Your task to perform on an android device: turn off notifications settings in the gmail app Image 0: 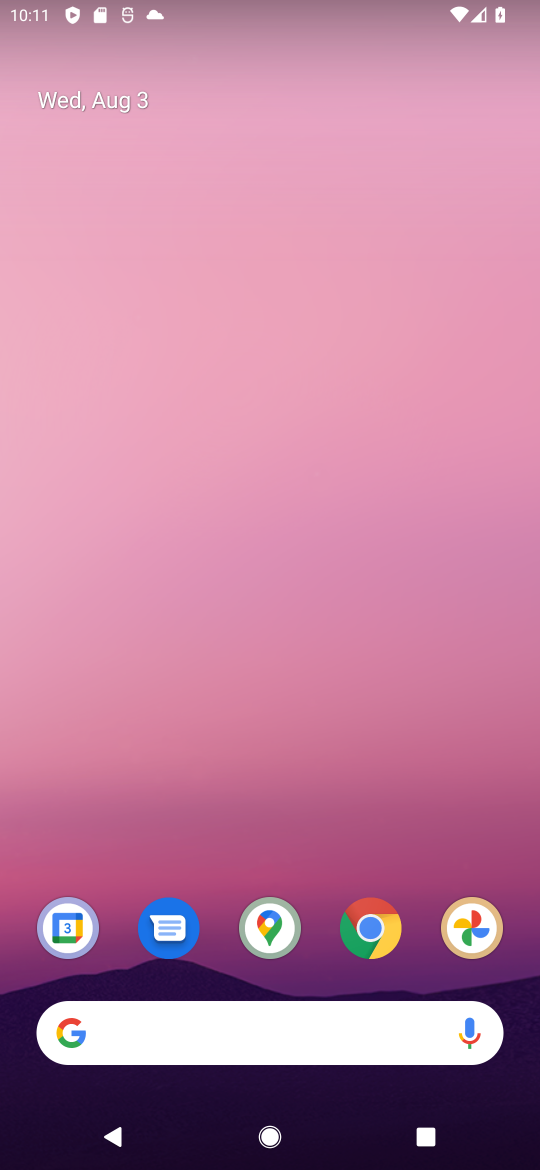
Step 0: drag from (411, 864) to (271, 2)
Your task to perform on an android device: turn off notifications settings in the gmail app Image 1: 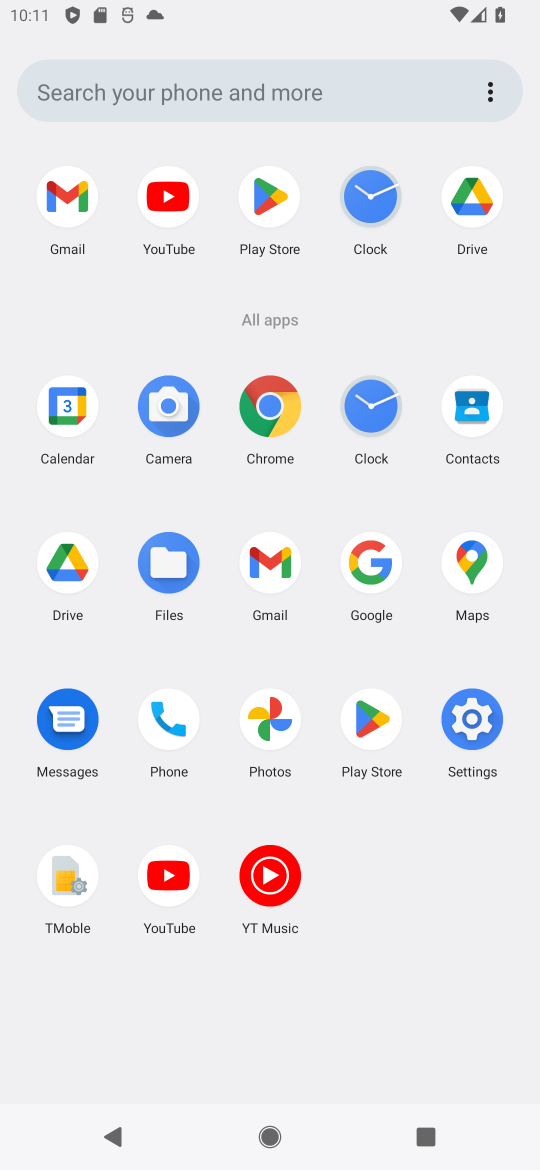
Step 1: click (270, 568)
Your task to perform on an android device: turn off notifications settings in the gmail app Image 2: 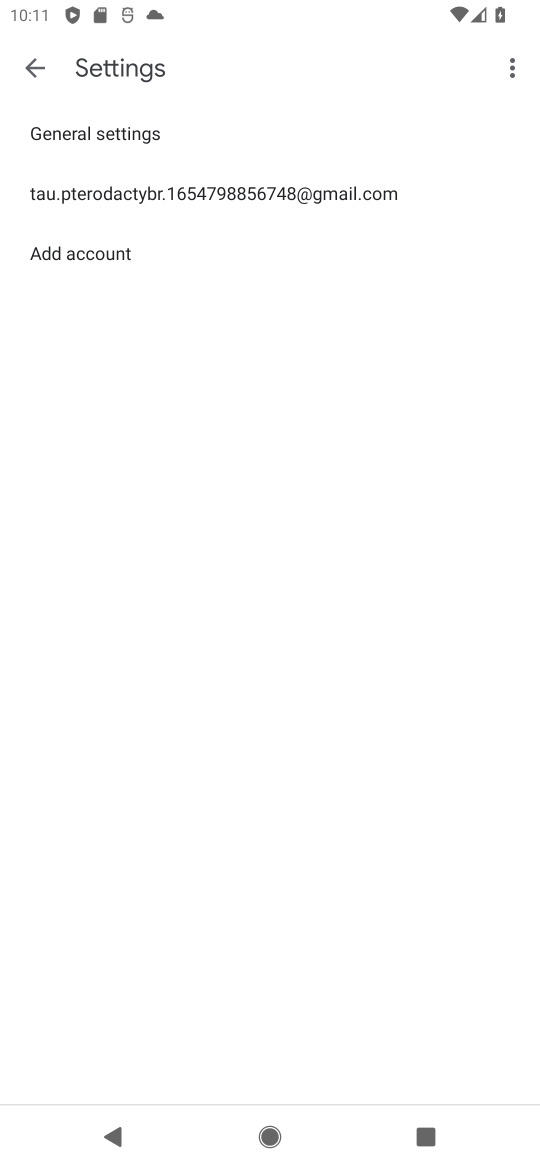
Step 2: press home button
Your task to perform on an android device: turn off notifications settings in the gmail app Image 3: 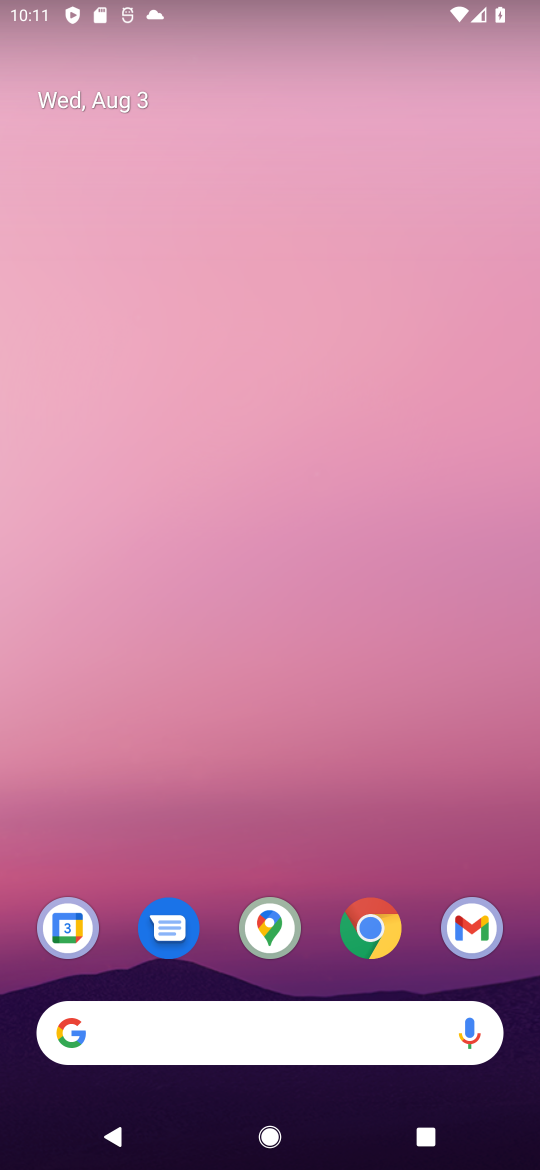
Step 3: click (479, 930)
Your task to perform on an android device: turn off notifications settings in the gmail app Image 4: 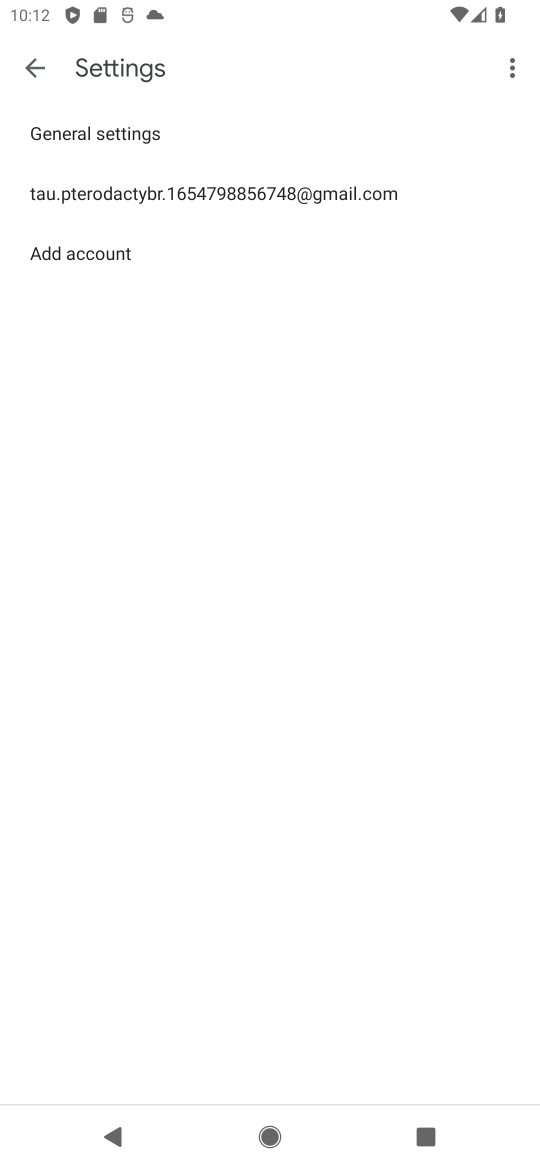
Step 4: click (171, 206)
Your task to perform on an android device: turn off notifications settings in the gmail app Image 5: 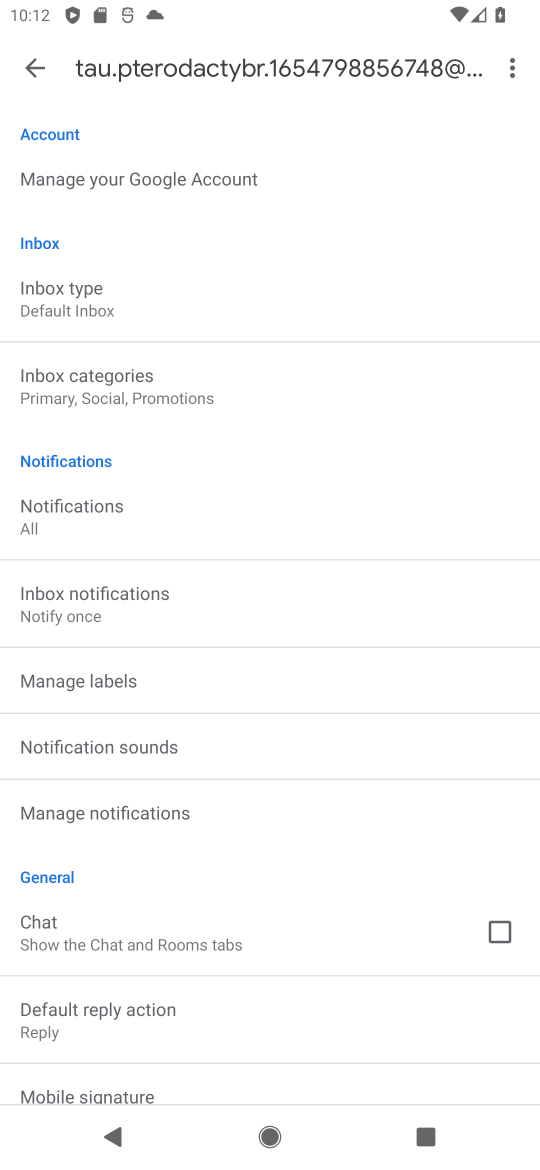
Step 5: click (231, 804)
Your task to perform on an android device: turn off notifications settings in the gmail app Image 6: 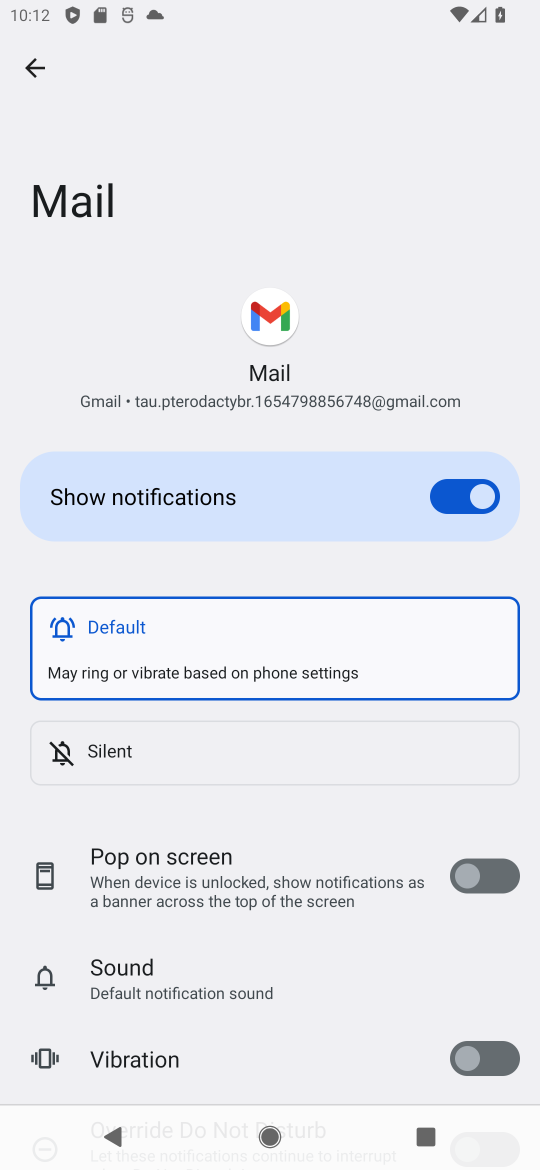
Step 6: task complete